Your task to perform on an android device: Do I have any events today? Image 0: 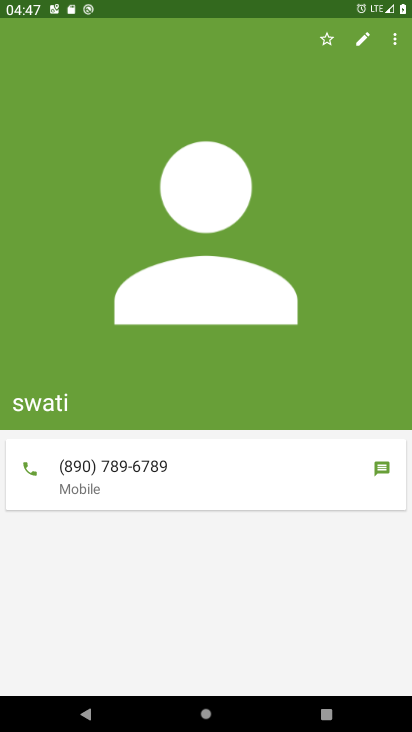
Step 0: press home button
Your task to perform on an android device: Do I have any events today? Image 1: 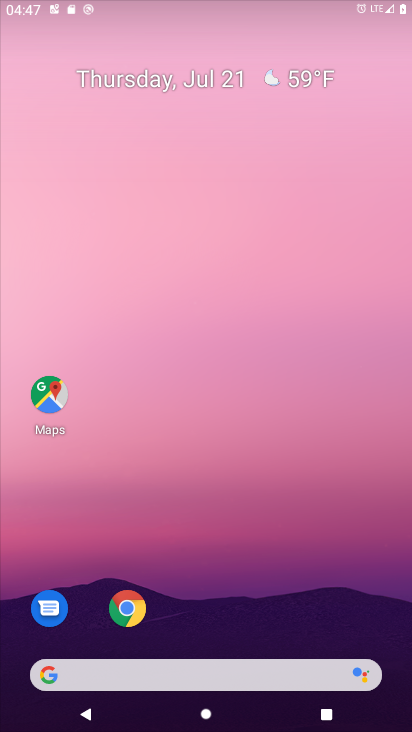
Step 1: drag from (289, 557) to (318, 1)
Your task to perform on an android device: Do I have any events today? Image 2: 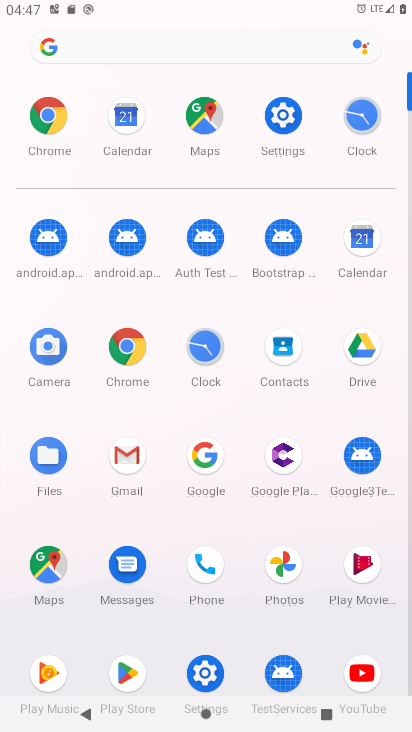
Step 2: click (353, 249)
Your task to perform on an android device: Do I have any events today? Image 3: 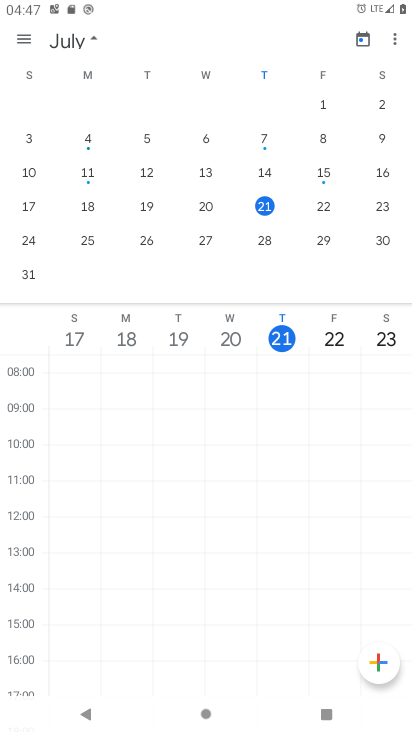
Step 3: click (270, 208)
Your task to perform on an android device: Do I have any events today? Image 4: 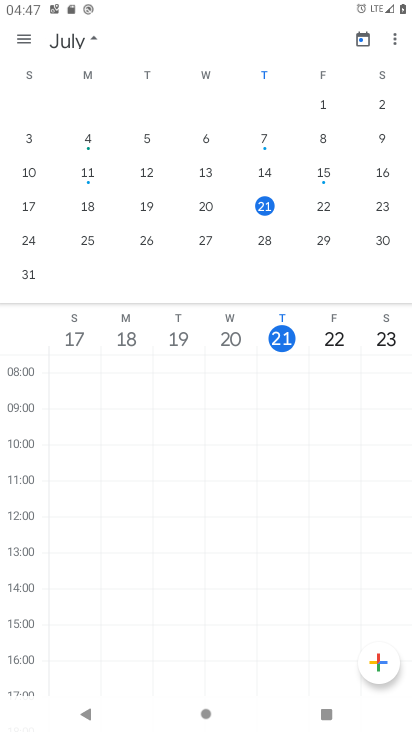
Step 4: task complete